Your task to perform on an android device: check storage Image 0: 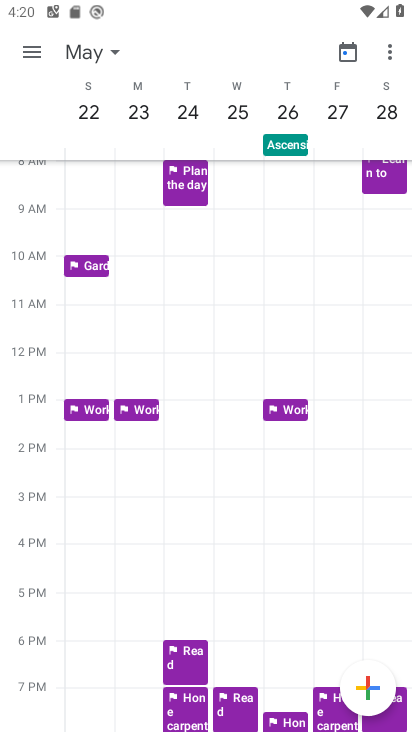
Step 0: press home button
Your task to perform on an android device: check storage Image 1: 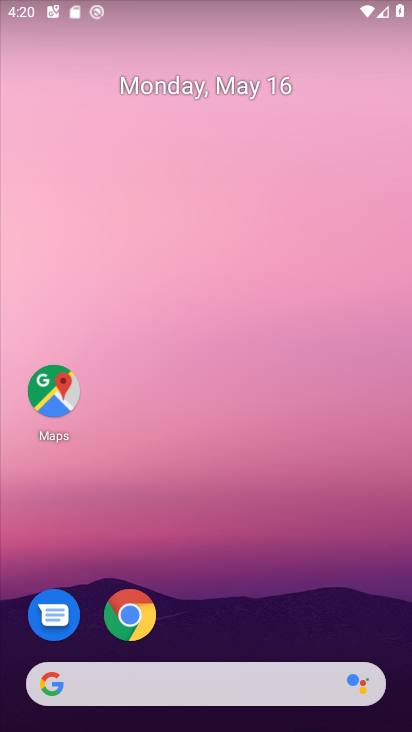
Step 1: drag from (238, 434) to (238, 220)
Your task to perform on an android device: check storage Image 2: 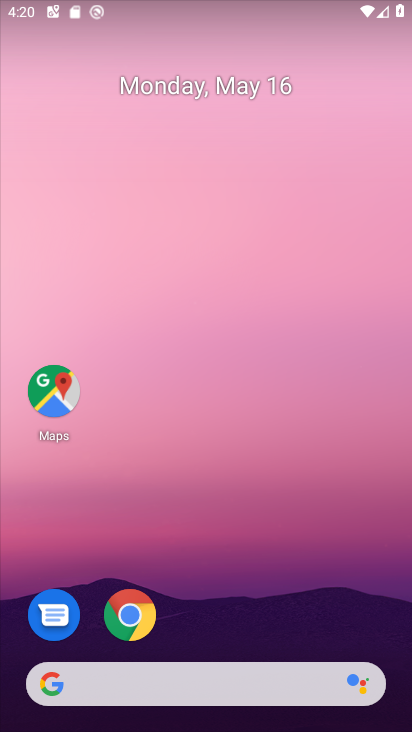
Step 2: drag from (266, 566) to (325, 68)
Your task to perform on an android device: check storage Image 3: 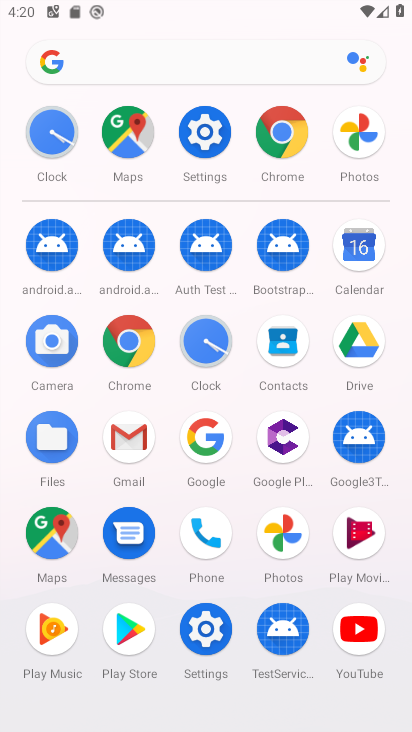
Step 3: click (213, 141)
Your task to perform on an android device: check storage Image 4: 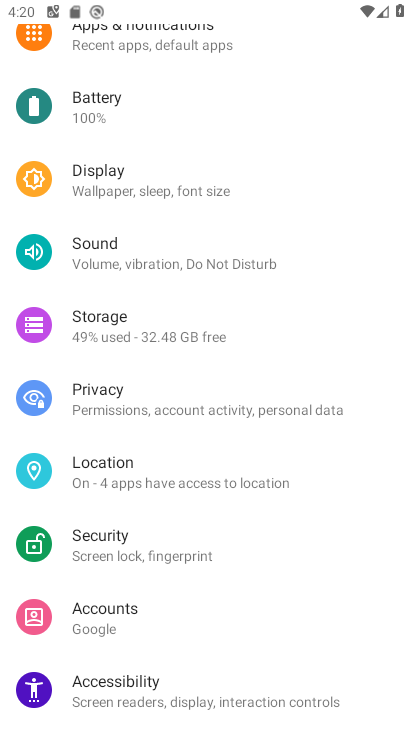
Step 4: click (99, 339)
Your task to perform on an android device: check storage Image 5: 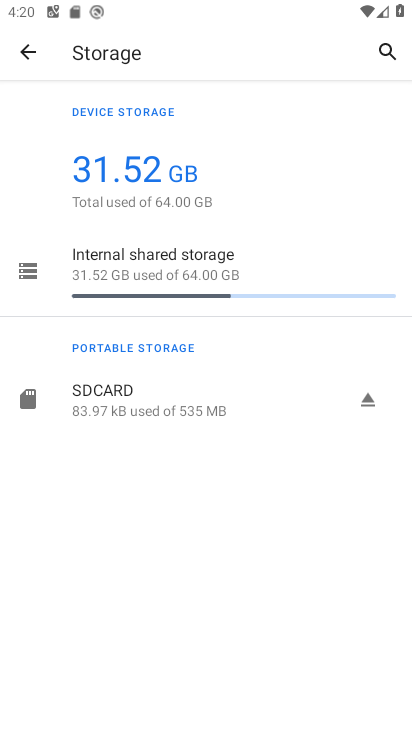
Step 5: task complete